Your task to perform on an android device: What's the weather? Image 0: 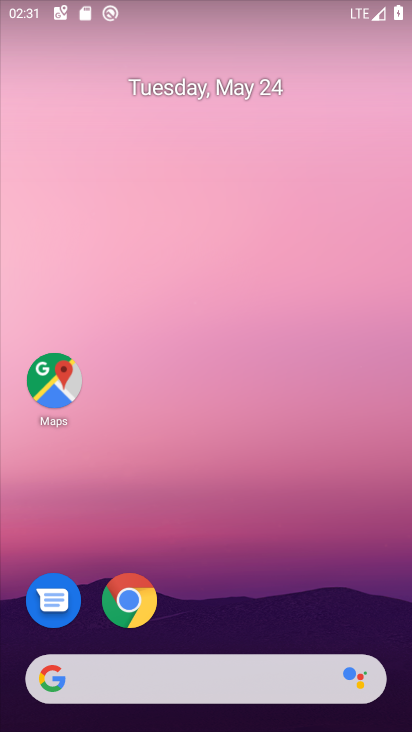
Step 0: click (157, 685)
Your task to perform on an android device: What's the weather? Image 1: 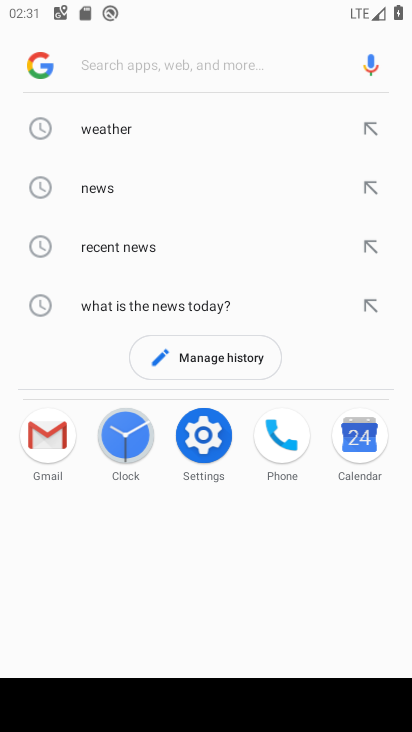
Step 1: click (156, 124)
Your task to perform on an android device: What's the weather? Image 2: 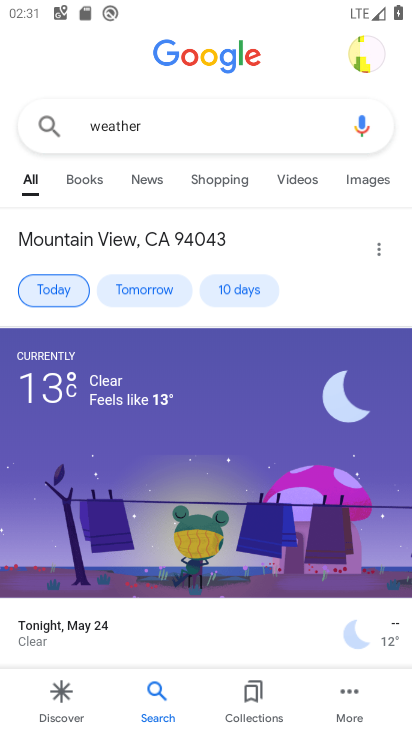
Step 2: task complete